Your task to perform on an android device: Go to notification settings Image 0: 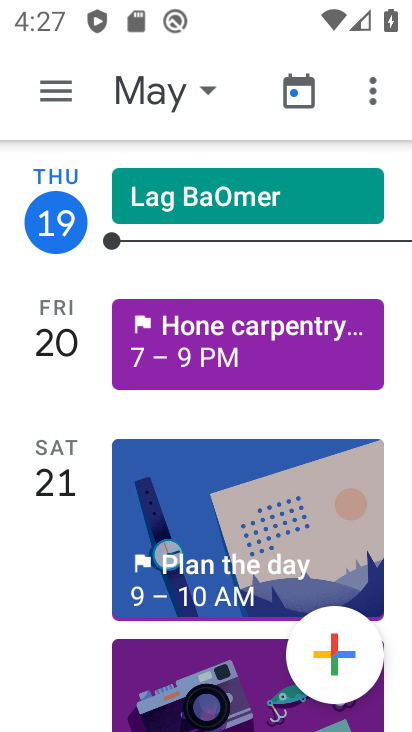
Step 0: press home button
Your task to perform on an android device: Go to notification settings Image 1: 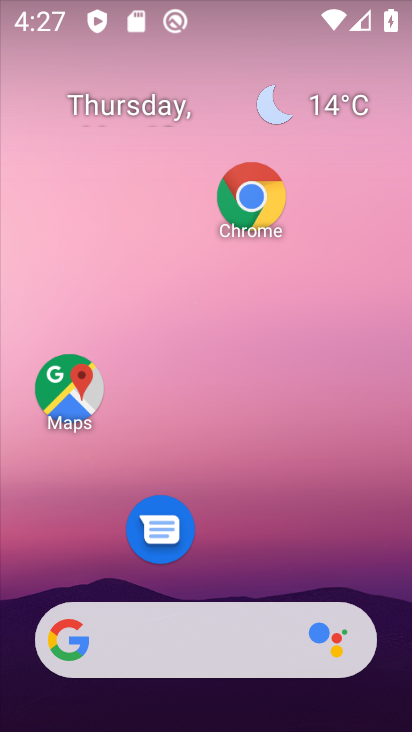
Step 1: drag from (222, 551) to (295, 61)
Your task to perform on an android device: Go to notification settings Image 2: 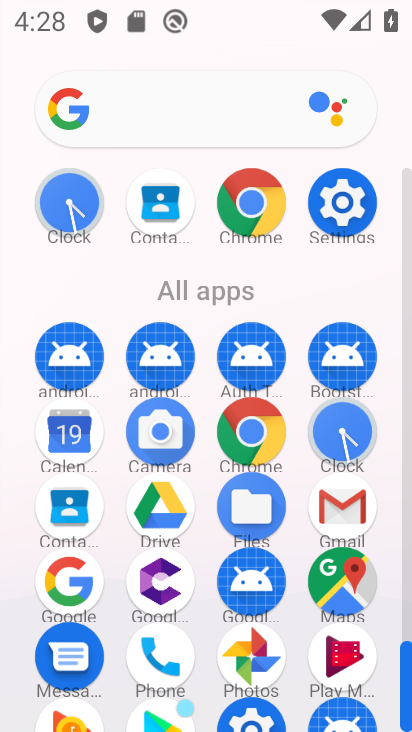
Step 2: click (330, 203)
Your task to perform on an android device: Go to notification settings Image 3: 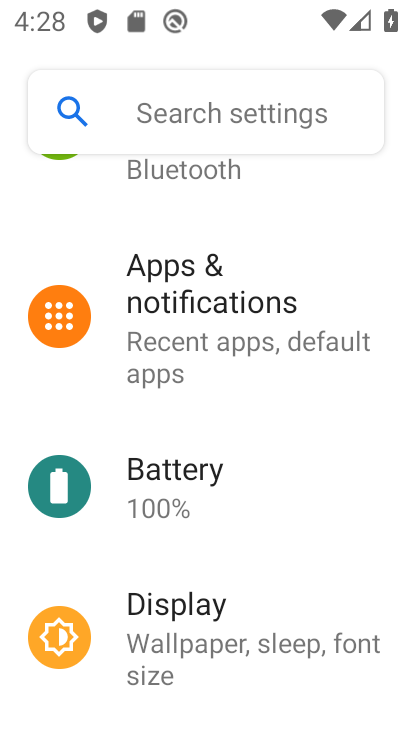
Step 3: click (233, 341)
Your task to perform on an android device: Go to notification settings Image 4: 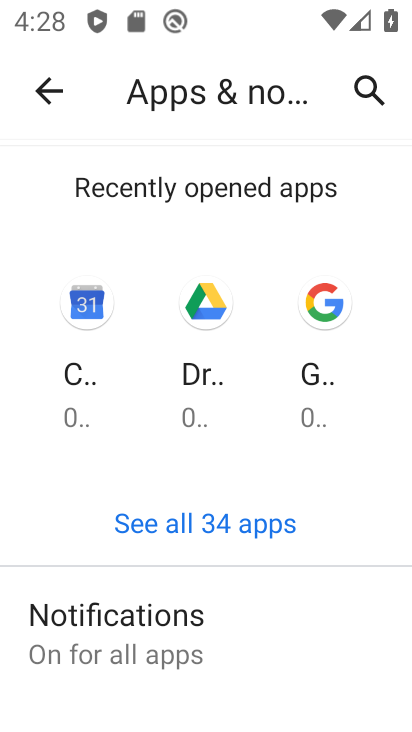
Step 4: click (240, 616)
Your task to perform on an android device: Go to notification settings Image 5: 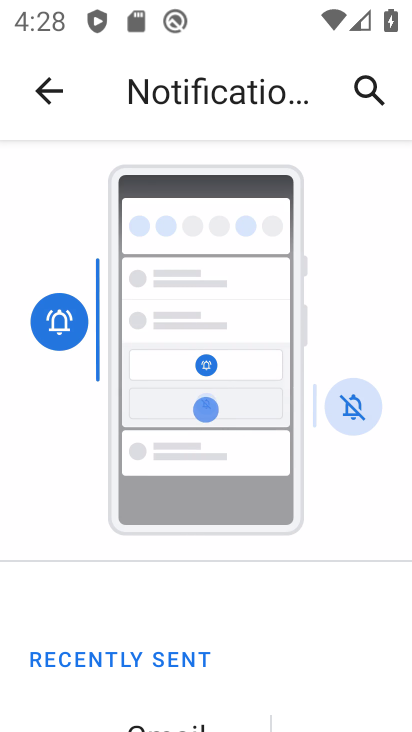
Step 5: drag from (203, 674) to (291, 193)
Your task to perform on an android device: Go to notification settings Image 6: 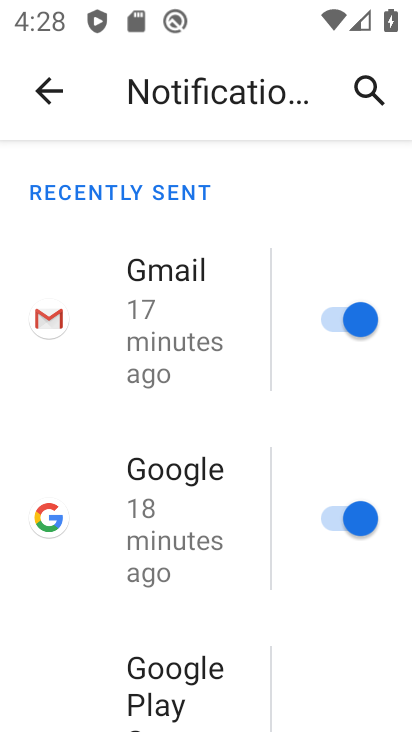
Step 6: drag from (214, 666) to (282, 335)
Your task to perform on an android device: Go to notification settings Image 7: 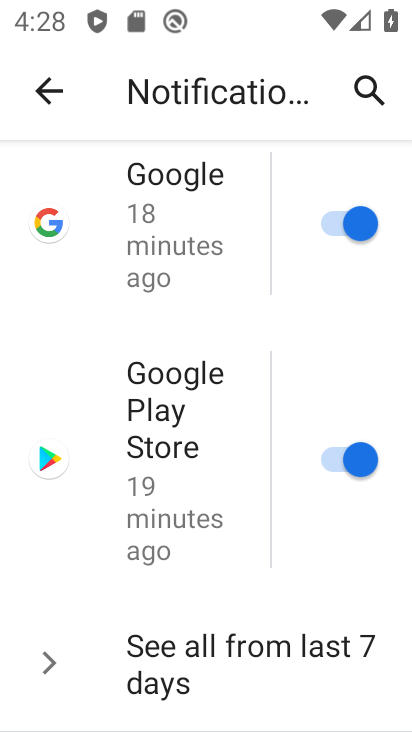
Step 7: drag from (227, 661) to (273, 267)
Your task to perform on an android device: Go to notification settings Image 8: 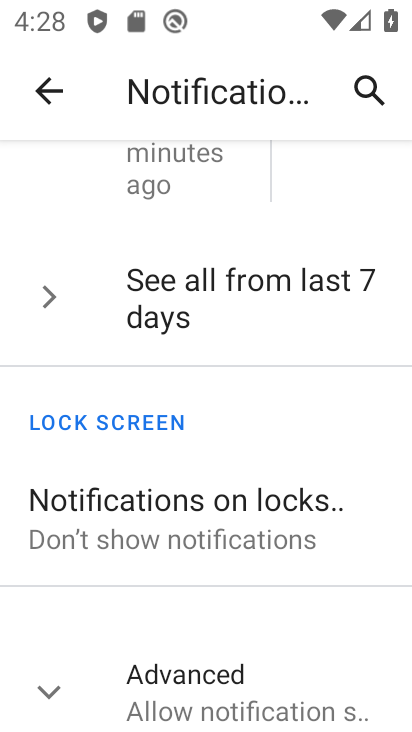
Step 8: drag from (161, 600) to (198, 290)
Your task to perform on an android device: Go to notification settings Image 9: 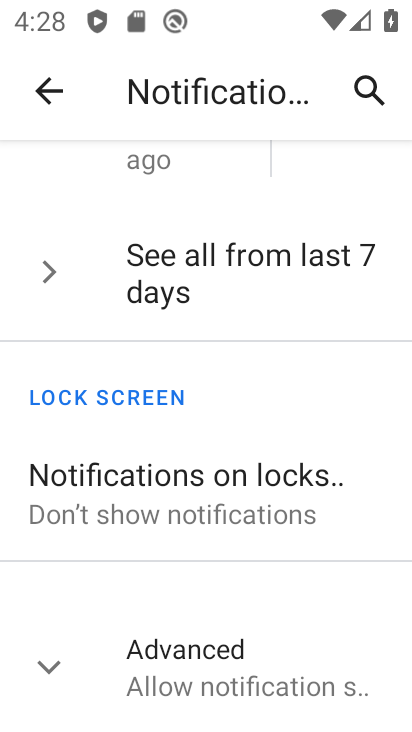
Step 9: click (55, 687)
Your task to perform on an android device: Go to notification settings Image 10: 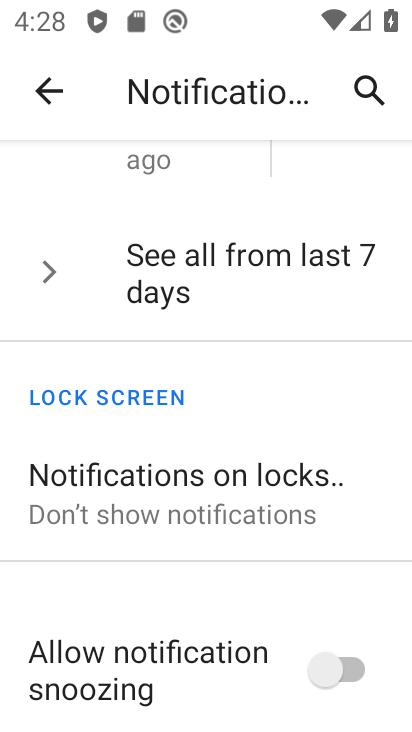
Step 10: task complete